Your task to perform on an android device: Search for "sony triple a" on bestbuy, select the first entry, add it to the cart, then select checkout. Image 0: 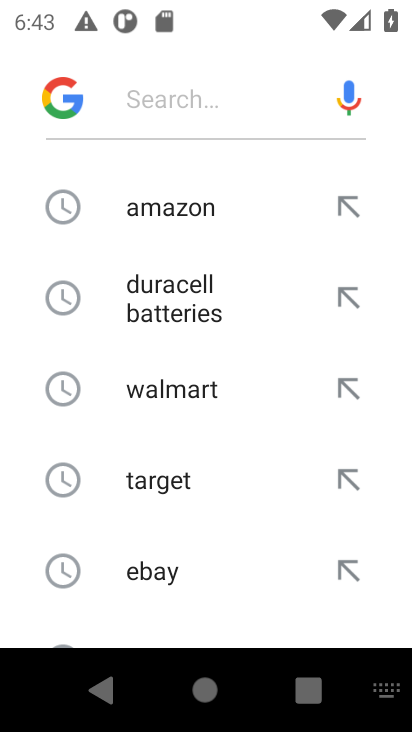
Step 0: type "bestbuy"
Your task to perform on an android device: Search for "sony triple a" on bestbuy, select the first entry, add it to the cart, then select checkout. Image 1: 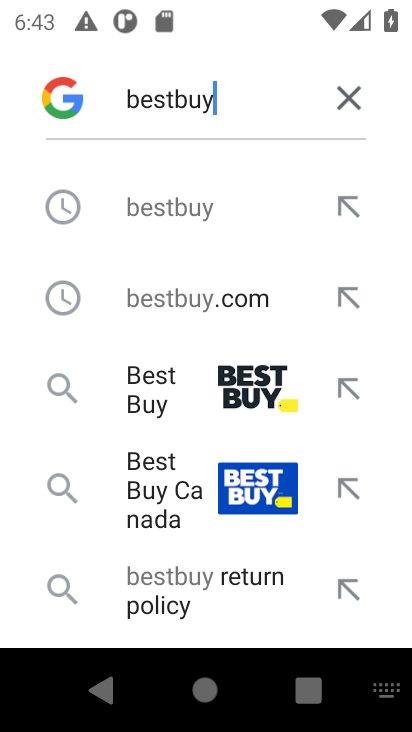
Step 1: click (181, 378)
Your task to perform on an android device: Search for "sony triple a" on bestbuy, select the first entry, add it to the cart, then select checkout. Image 2: 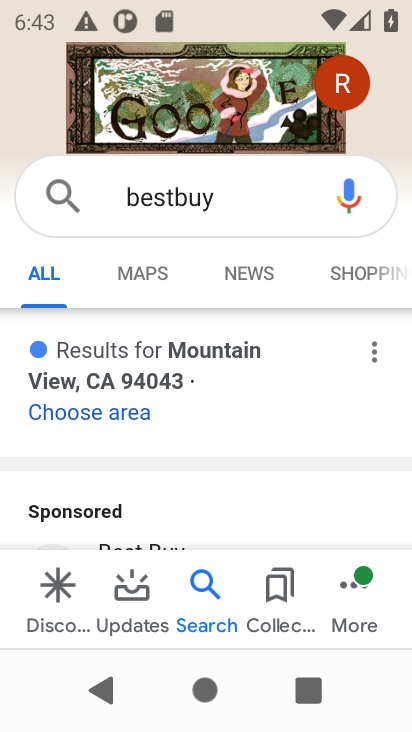
Step 2: click (74, 541)
Your task to perform on an android device: Search for "sony triple a" on bestbuy, select the first entry, add it to the cart, then select checkout. Image 3: 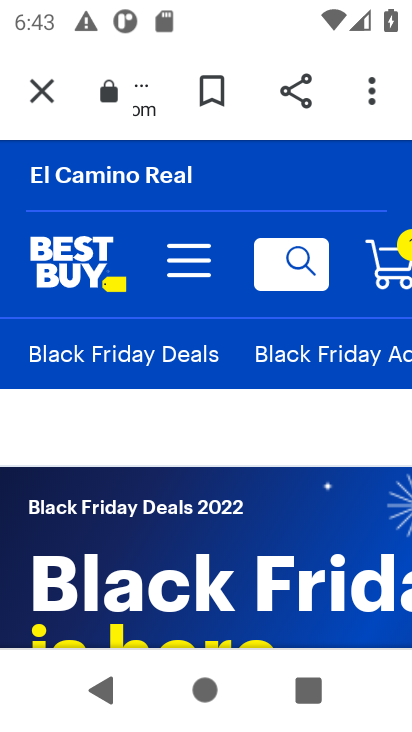
Step 3: click (270, 273)
Your task to perform on an android device: Search for "sony triple a" on bestbuy, select the first entry, add it to the cart, then select checkout. Image 4: 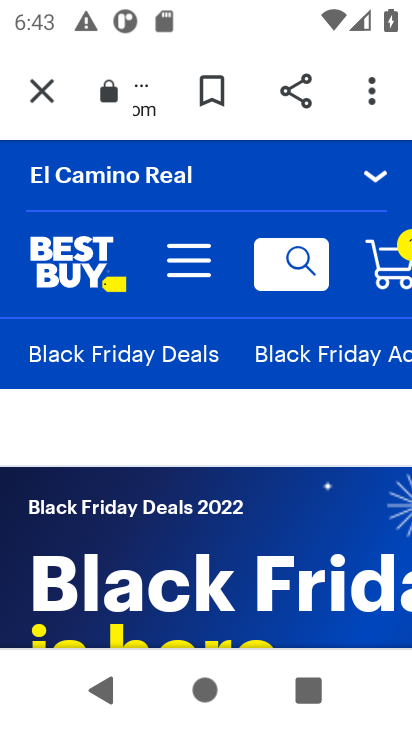
Step 4: click (285, 271)
Your task to perform on an android device: Search for "sony triple a" on bestbuy, select the first entry, add it to the cart, then select checkout. Image 5: 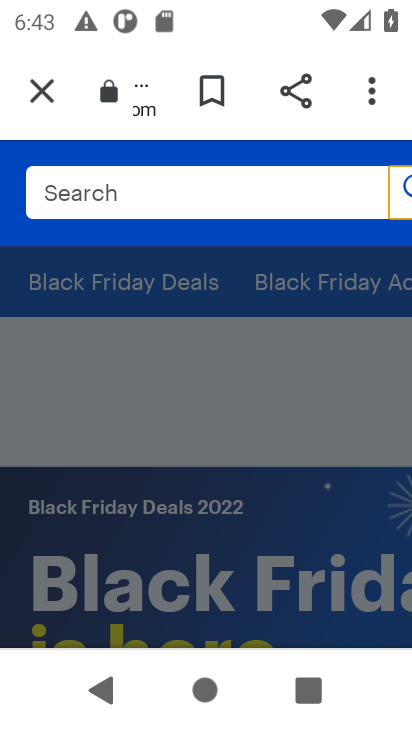
Step 5: click (241, 189)
Your task to perform on an android device: Search for "sony triple a" on bestbuy, select the first entry, add it to the cart, then select checkout. Image 6: 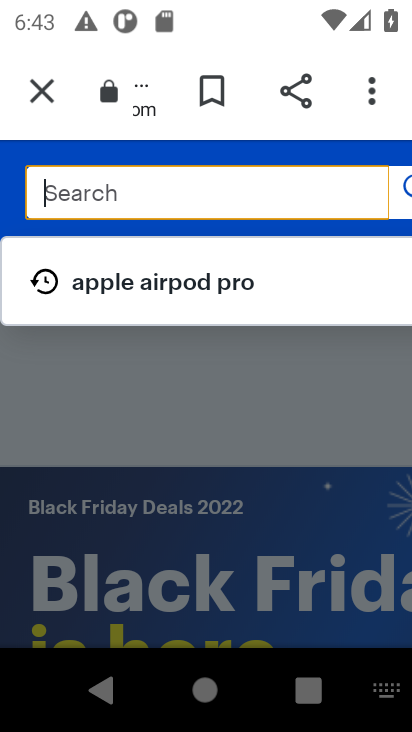
Step 6: type "sony triple a"
Your task to perform on an android device: Search for "sony triple a" on bestbuy, select the first entry, add it to the cart, then select checkout. Image 7: 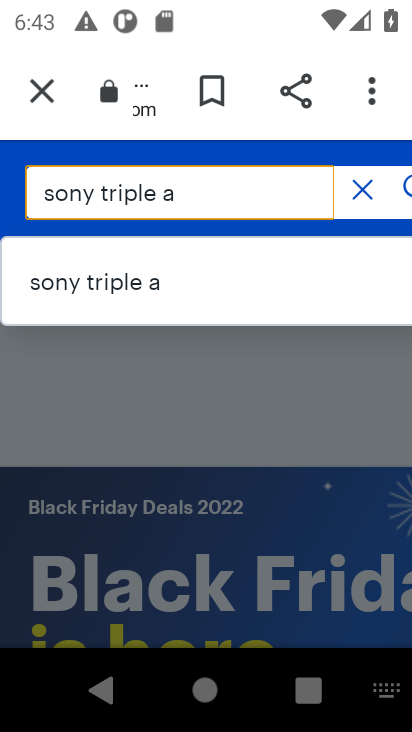
Step 7: click (403, 196)
Your task to perform on an android device: Search for "sony triple a" on bestbuy, select the first entry, add it to the cart, then select checkout. Image 8: 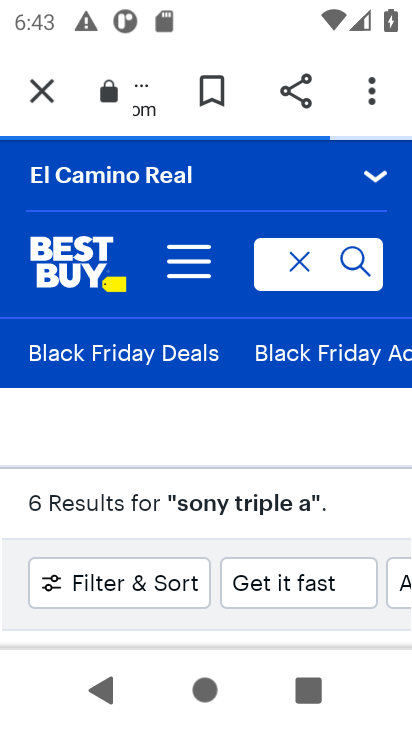
Step 8: drag from (197, 455) to (260, 213)
Your task to perform on an android device: Search for "sony triple a" on bestbuy, select the first entry, add it to the cart, then select checkout. Image 9: 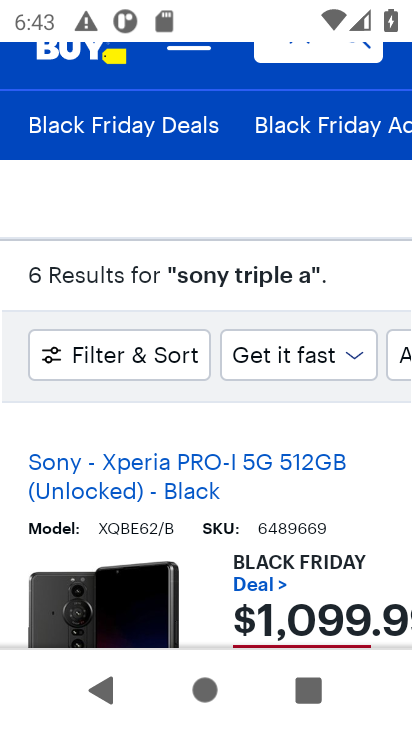
Step 9: drag from (265, 486) to (289, 314)
Your task to perform on an android device: Search for "sony triple a" on bestbuy, select the first entry, add it to the cart, then select checkout. Image 10: 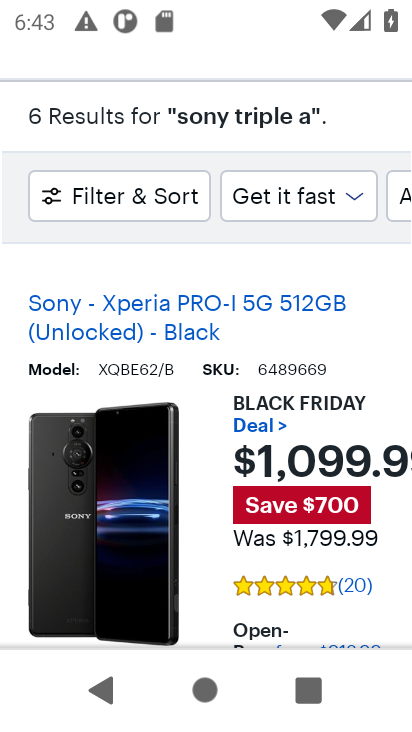
Step 10: click (203, 310)
Your task to perform on an android device: Search for "sony triple a" on bestbuy, select the first entry, add it to the cart, then select checkout. Image 11: 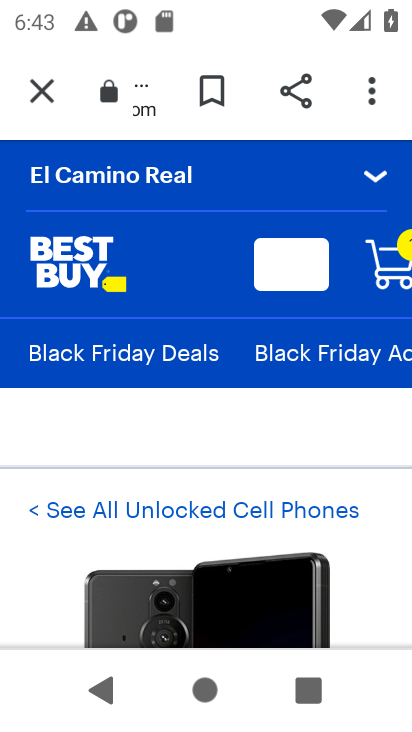
Step 11: task complete